Your task to perform on an android device: Open the map Image 0: 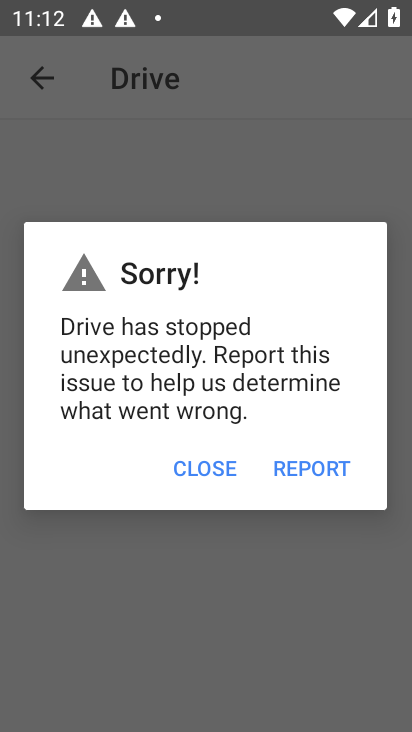
Step 0: press home button
Your task to perform on an android device: Open the map Image 1: 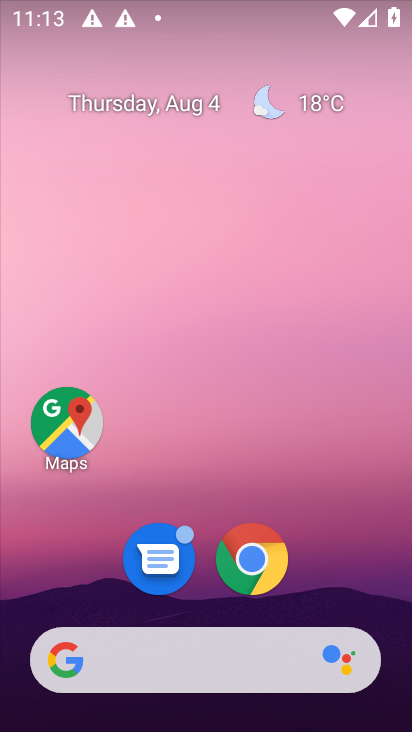
Step 1: click (63, 411)
Your task to perform on an android device: Open the map Image 2: 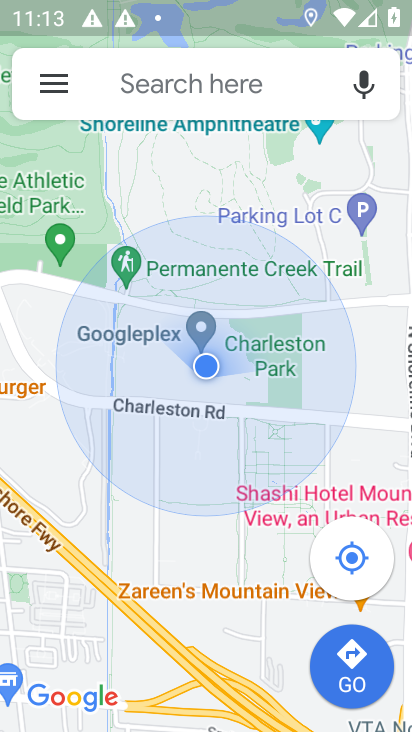
Step 2: task complete